Your task to perform on an android device: Go to battery settings Image 0: 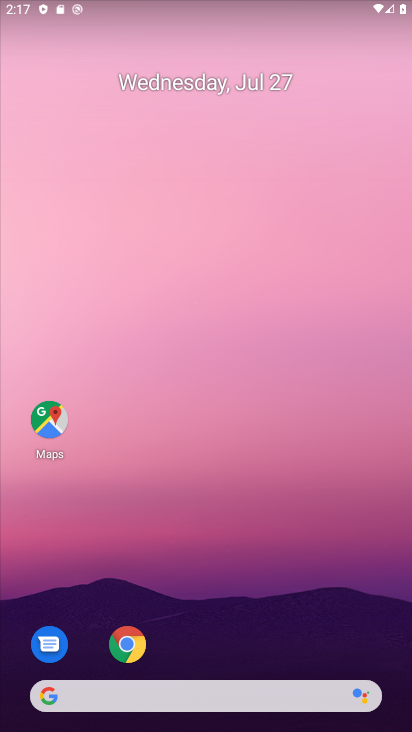
Step 0: drag from (308, 634) to (276, 123)
Your task to perform on an android device: Go to battery settings Image 1: 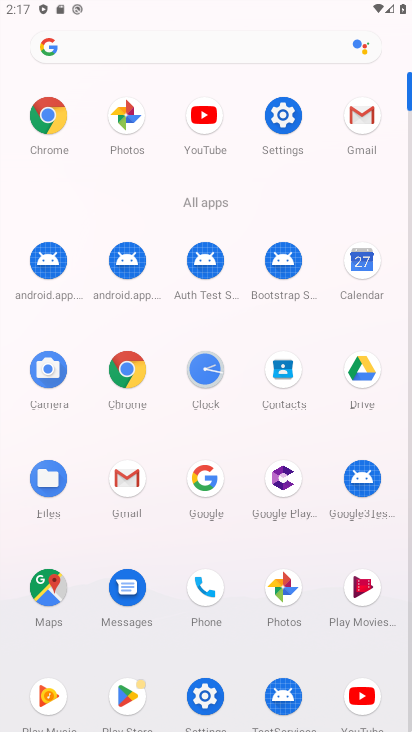
Step 1: click (284, 122)
Your task to perform on an android device: Go to battery settings Image 2: 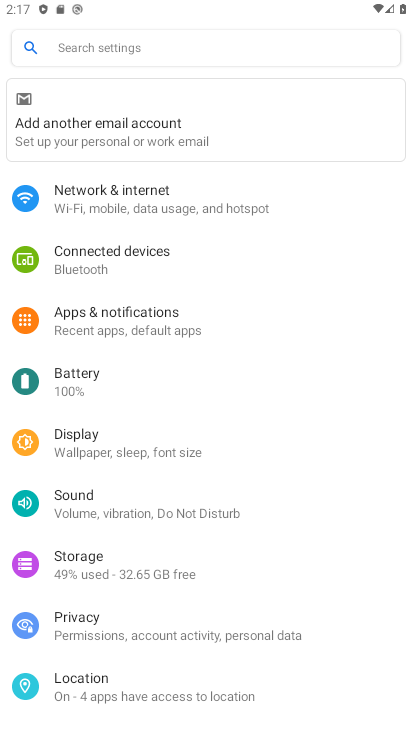
Step 2: click (159, 388)
Your task to perform on an android device: Go to battery settings Image 3: 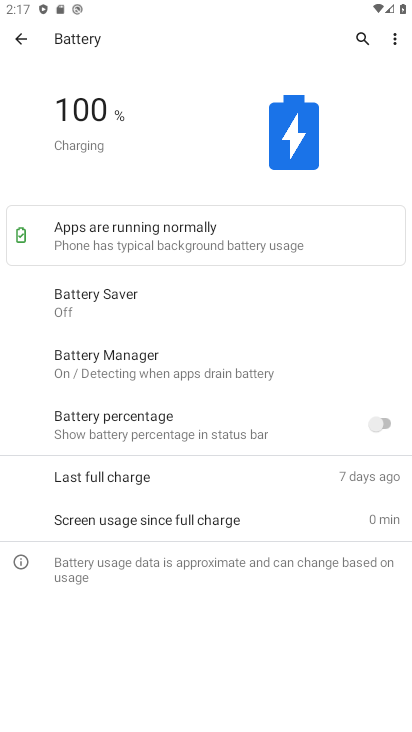
Step 3: task complete